Your task to perform on an android device: toggle sleep mode Image 0: 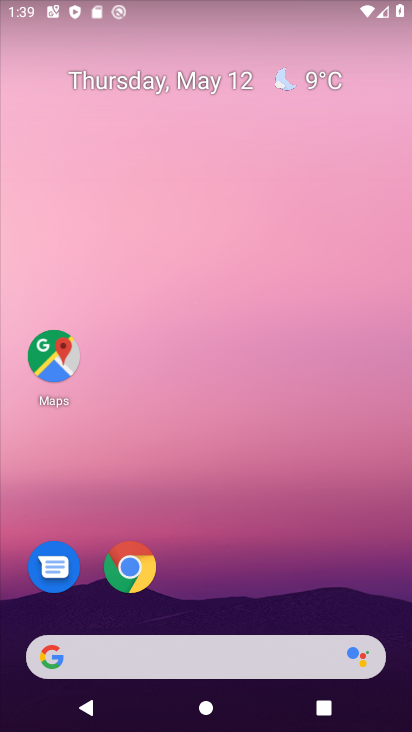
Step 0: press home button
Your task to perform on an android device: toggle sleep mode Image 1: 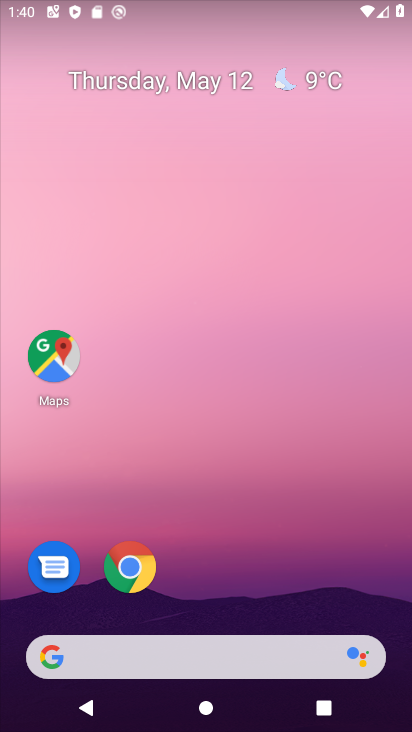
Step 1: drag from (228, 614) to (247, 206)
Your task to perform on an android device: toggle sleep mode Image 2: 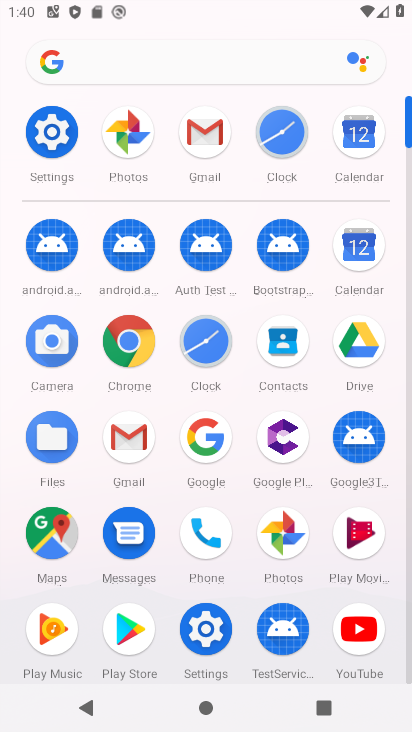
Step 2: click (51, 126)
Your task to perform on an android device: toggle sleep mode Image 3: 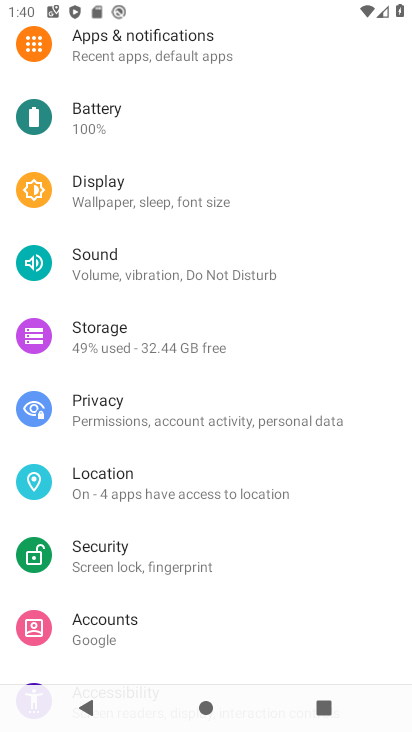
Step 3: click (132, 183)
Your task to perform on an android device: toggle sleep mode Image 4: 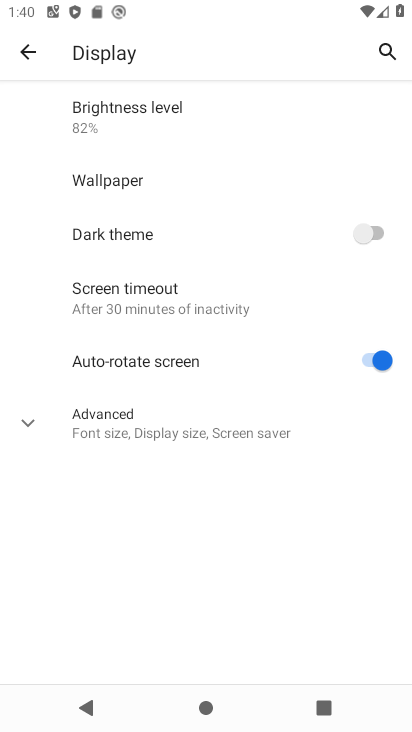
Step 4: click (29, 415)
Your task to perform on an android device: toggle sleep mode Image 5: 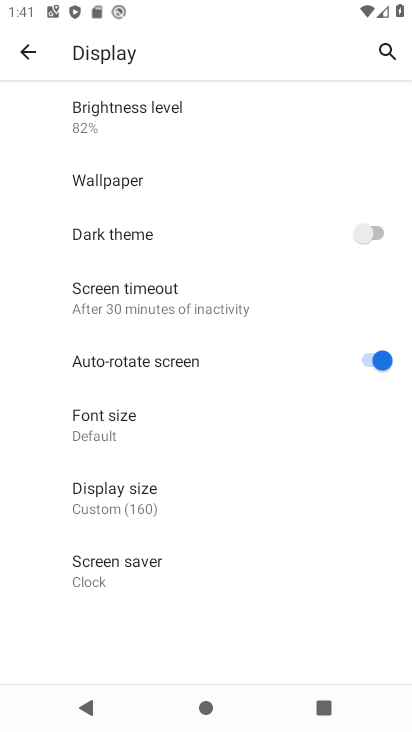
Step 5: task complete